Your task to perform on an android device: Clear the shopping cart on newegg.com. Search for "bose soundsport free" on newegg.com, select the first entry, and add it to the cart. Image 0: 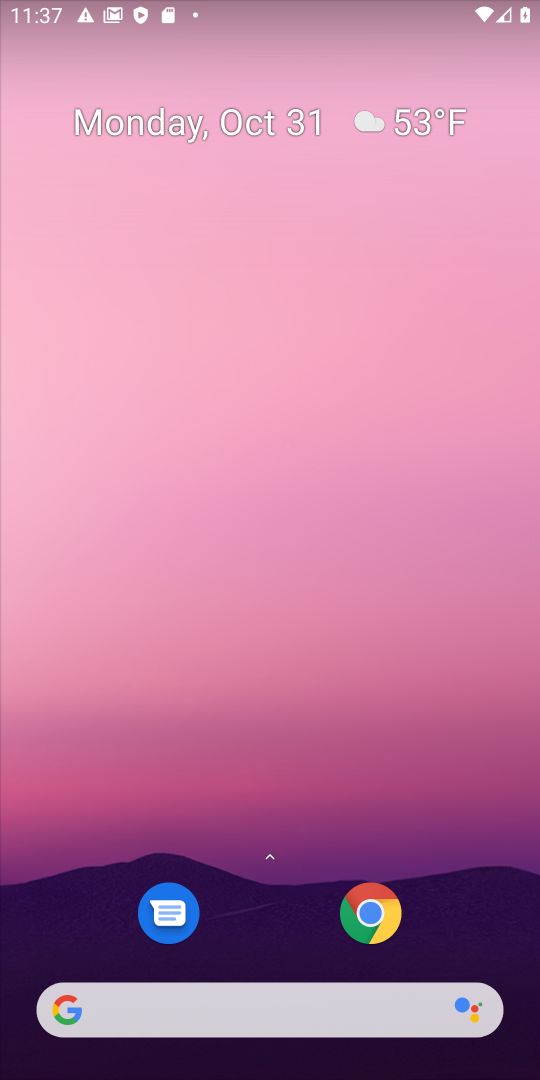
Step 0: click (349, 1026)
Your task to perform on an android device: Clear the shopping cart on newegg.com. Search for "bose soundsport free" on newegg.com, select the first entry, and add it to the cart. Image 1: 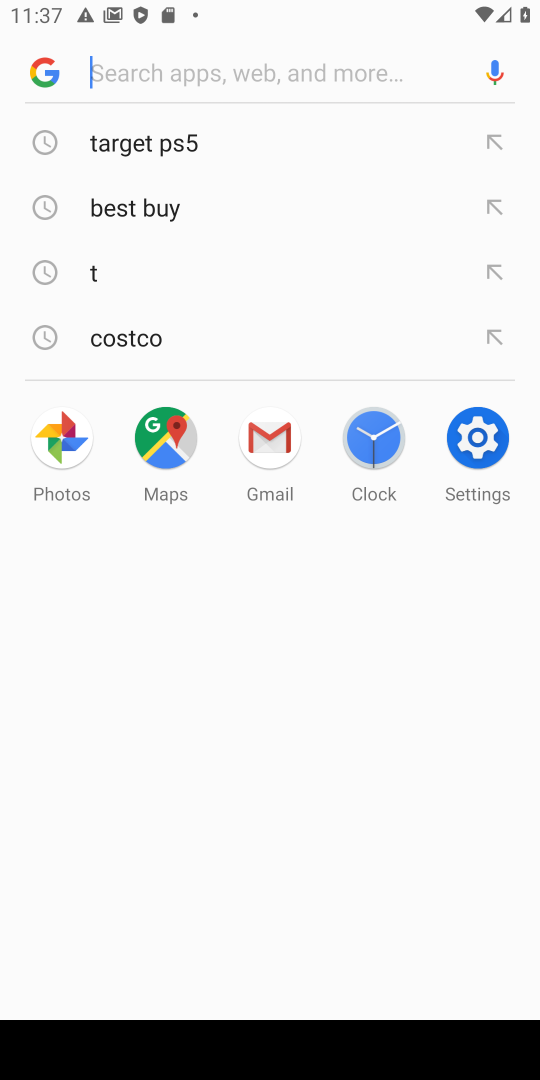
Step 1: type "newegg"
Your task to perform on an android device: Clear the shopping cart on newegg.com. Search for "bose soundsport free" on newegg.com, select the first entry, and add it to the cart. Image 2: 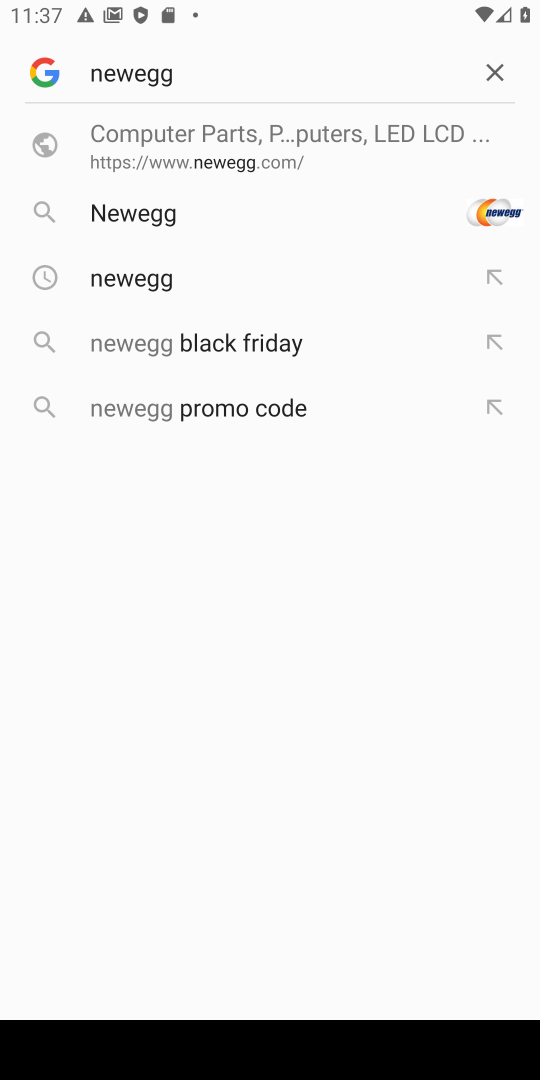
Step 2: click (238, 136)
Your task to perform on an android device: Clear the shopping cart on newegg.com. Search for "bose soundsport free" on newegg.com, select the first entry, and add it to the cart. Image 3: 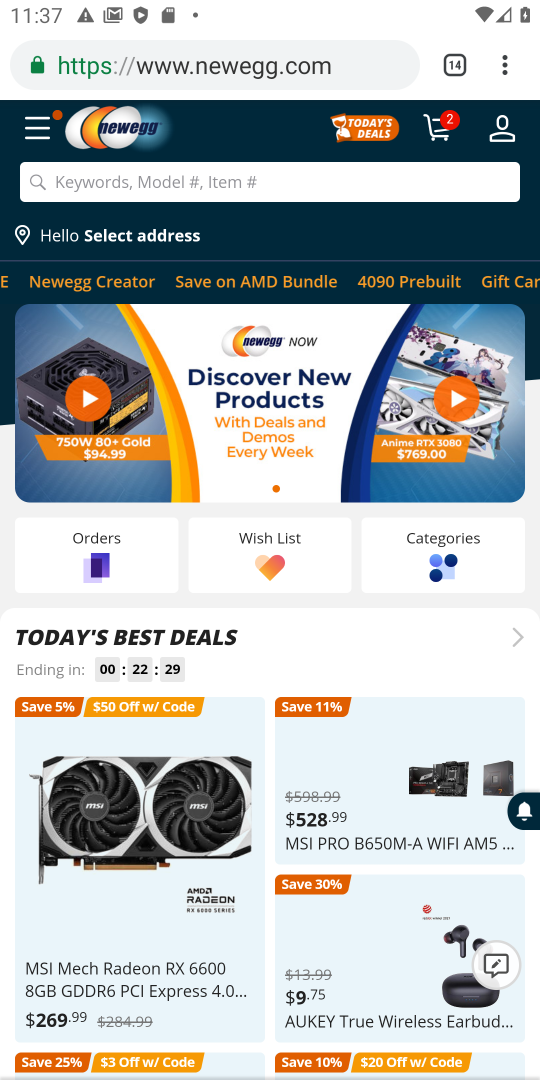
Step 3: click (213, 187)
Your task to perform on an android device: Clear the shopping cart on newegg.com. Search for "bose soundsport free" on newegg.com, select the first entry, and add it to the cart. Image 4: 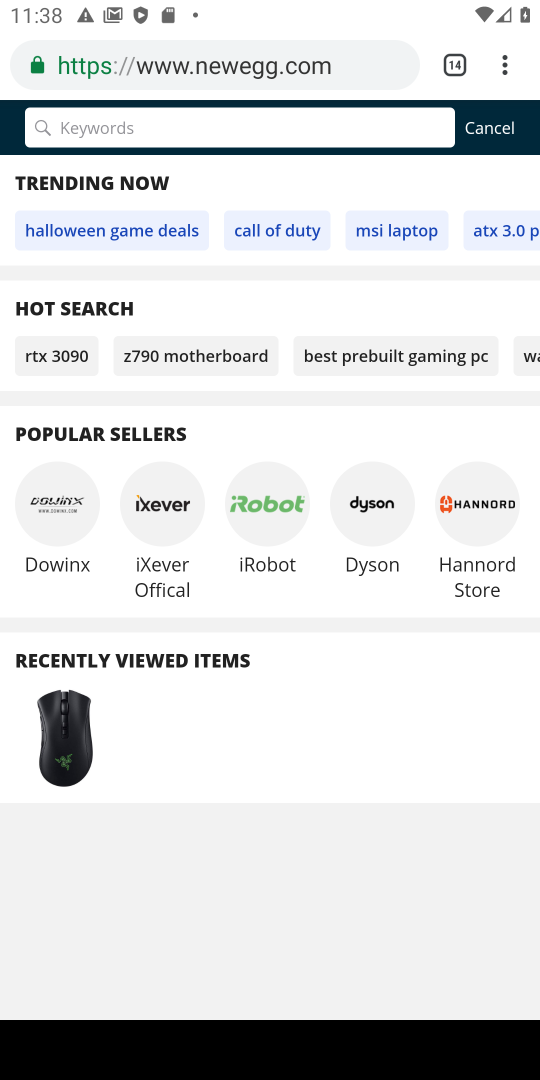
Step 4: task complete